Your task to perform on an android device: Open the phone app and click the voicemail tab. Image 0: 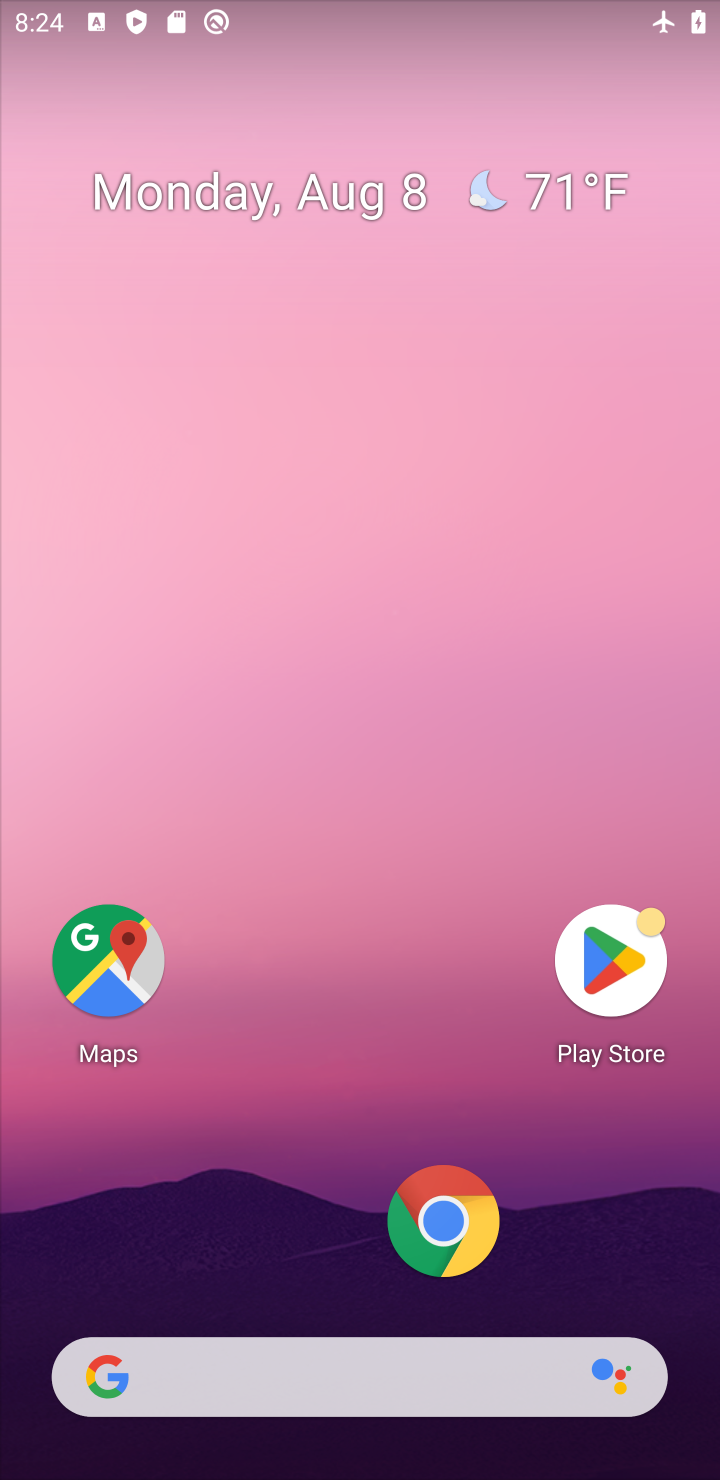
Step 0: drag from (262, 1240) to (322, 97)
Your task to perform on an android device: Open the phone app and click the voicemail tab. Image 1: 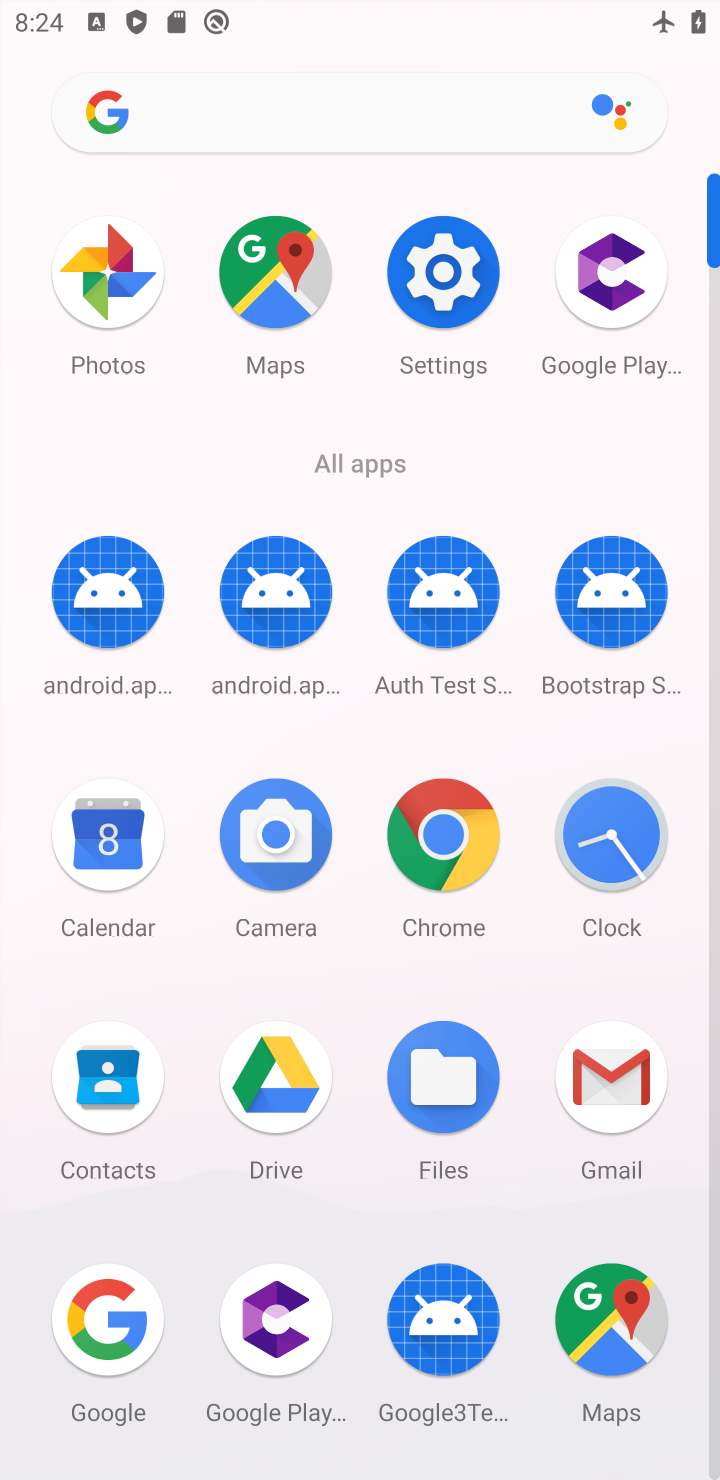
Step 1: drag from (228, 1088) to (201, 603)
Your task to perform on an android device: Open the phone app and click the voicemail tab. Image 2: 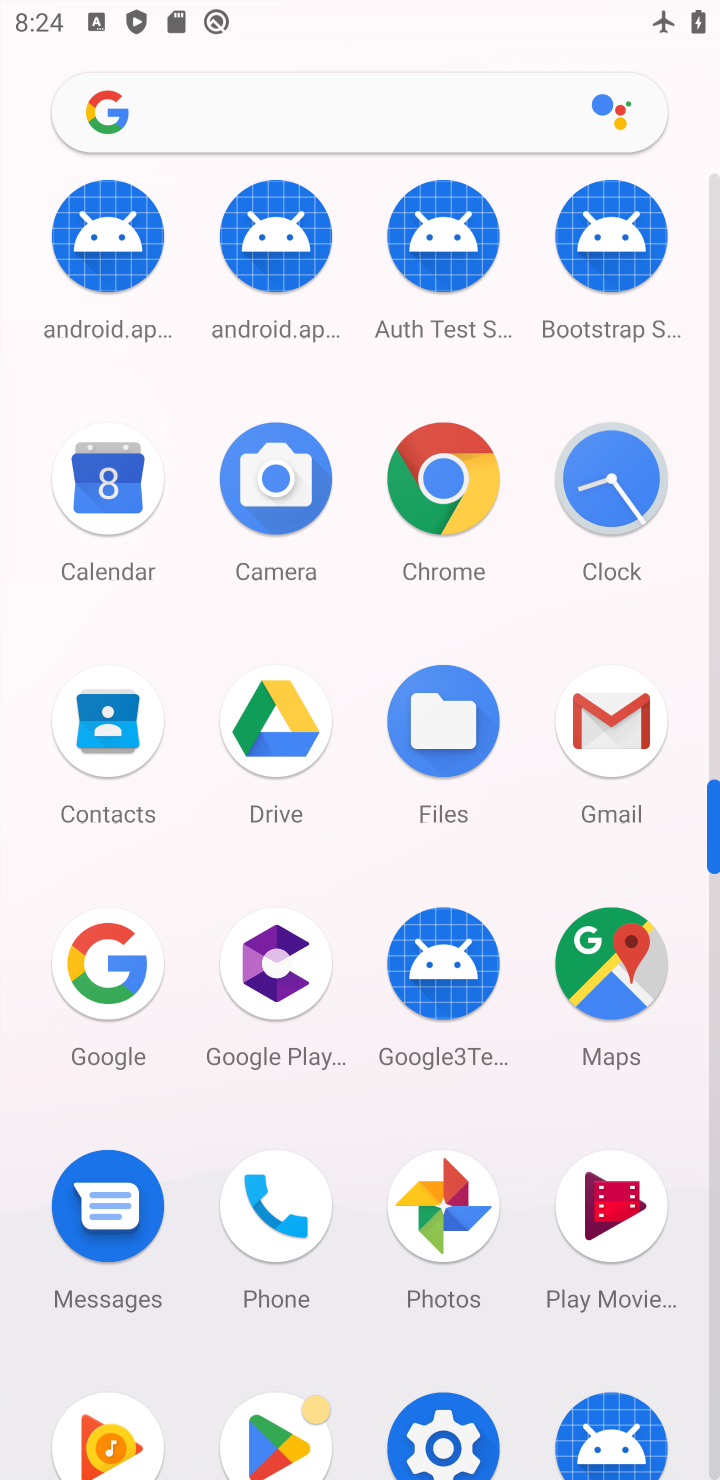
Step 2: click (268, 1181)
Your task to perform on an android device: Open the phone app and click the voicemail tab. Image 3: 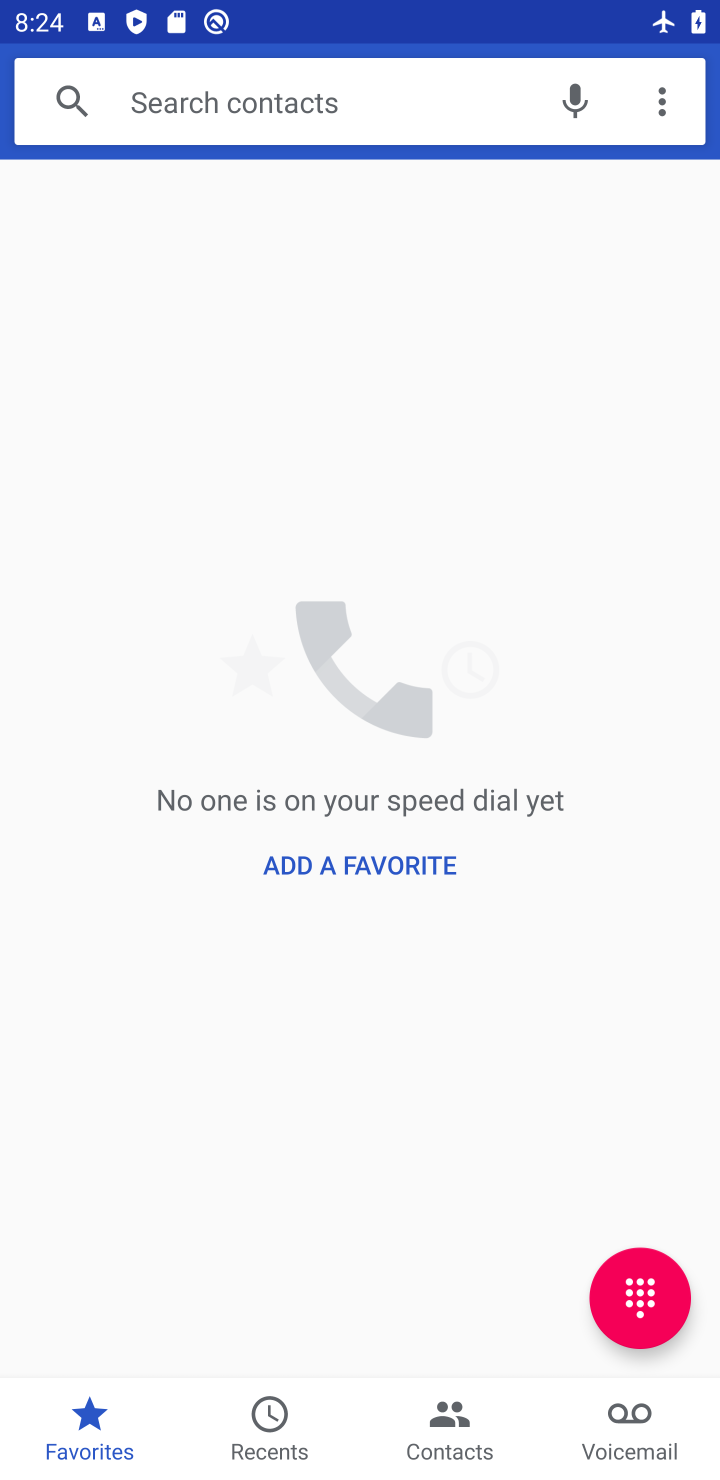
Step 3: click (610, 1434)
Your task to perform on an android device: Open the phone app and click the voicemail tab. Image 4: 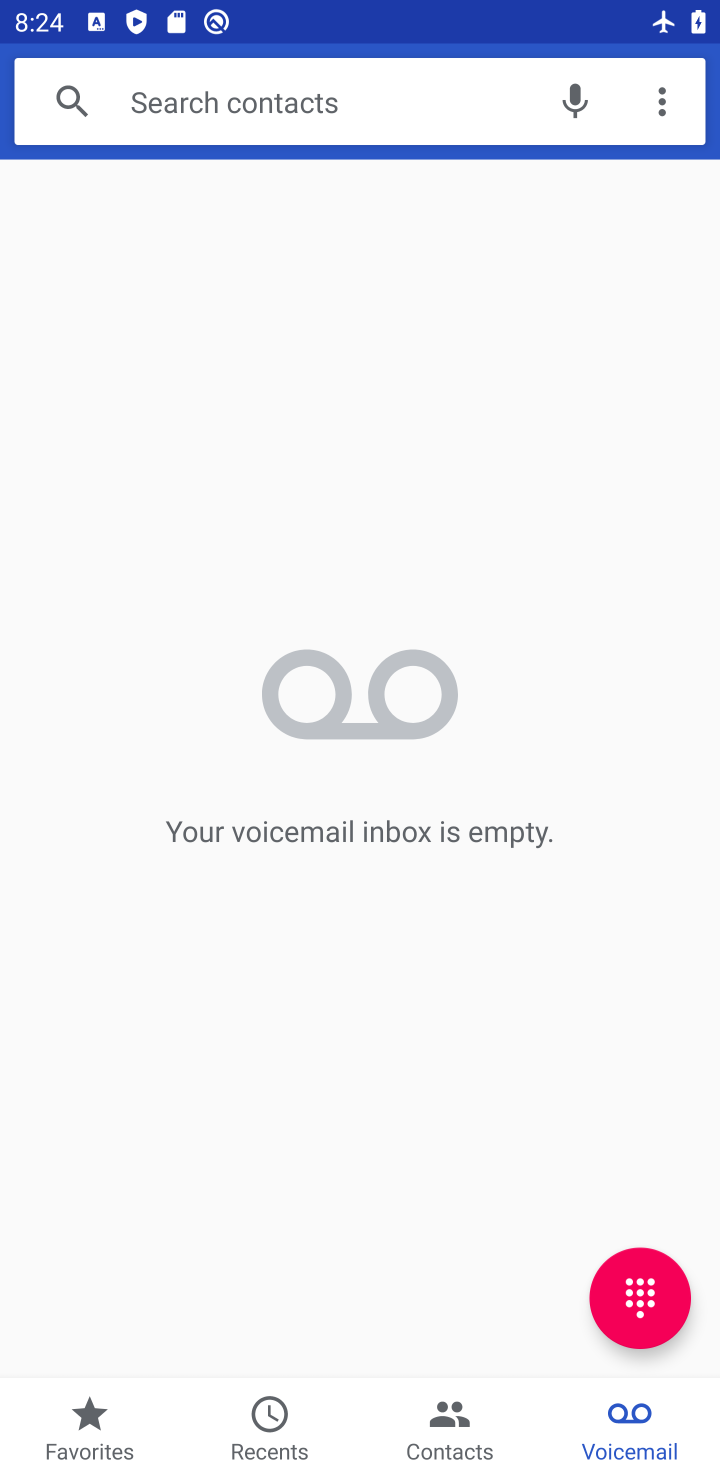
Step 4: task complete